Your task to perform on an android device: turn off priority inbox in the gmail app Image 0: 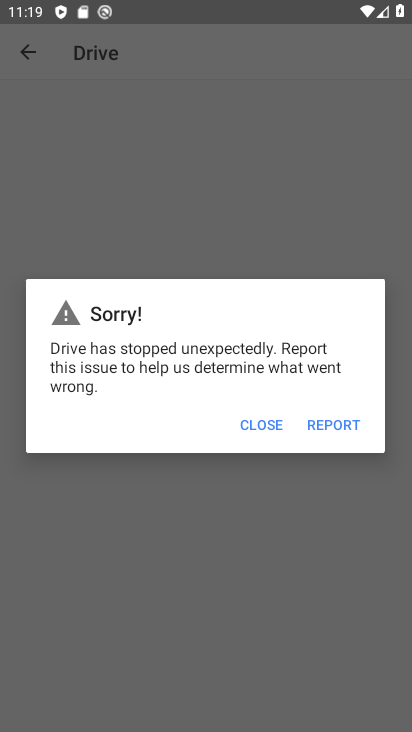
Step 0: press home button
Your task to perform on an android device: turn off priority inbox in the gmail app Image 1: 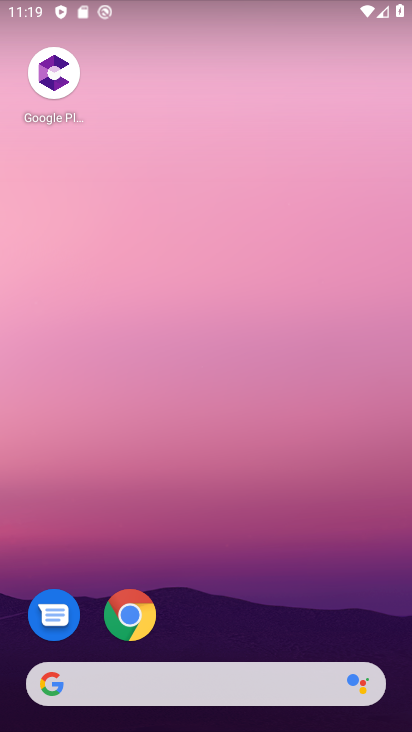
Step 1: drag from (208, 455) to (244, 15)
Your task to perform on an android device: turn off priority inbox in the gmail app Image 2: 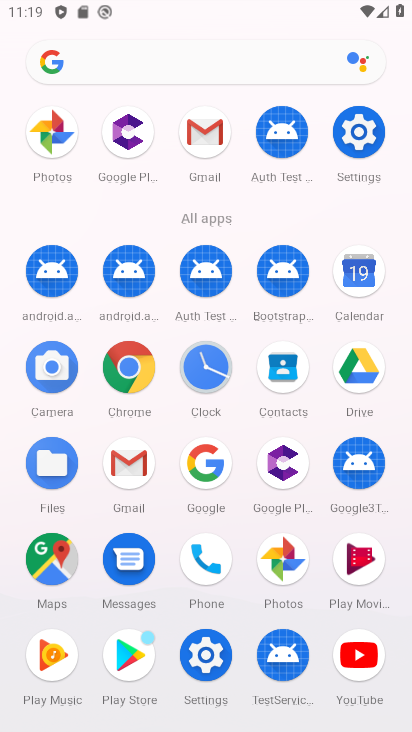
Step 2: click (202, 142)
Your task to perform on an android device: turn off priority inbox in the gmail app Image 3: 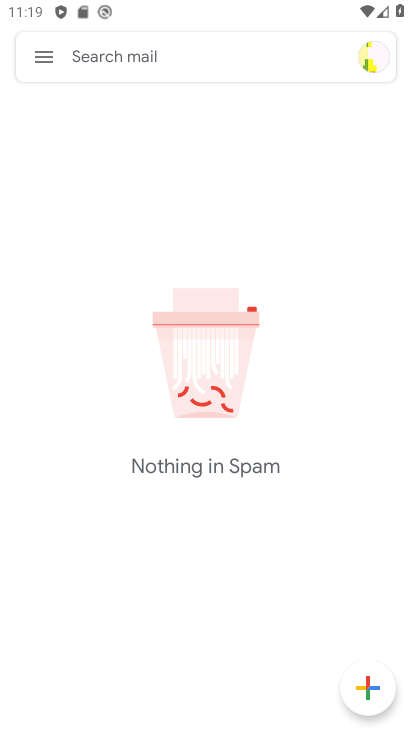
Step 3: click (57, 63)
Your task to perform on an android device: turn off priority inbox in the gmail app Image 4: 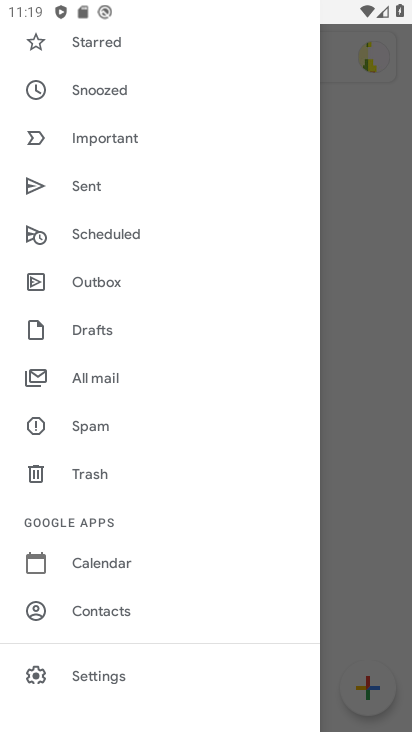
Step 4: click (98, 669)
Your task to perform on an android device: turn off priority inbox in the gmail app Image 5: 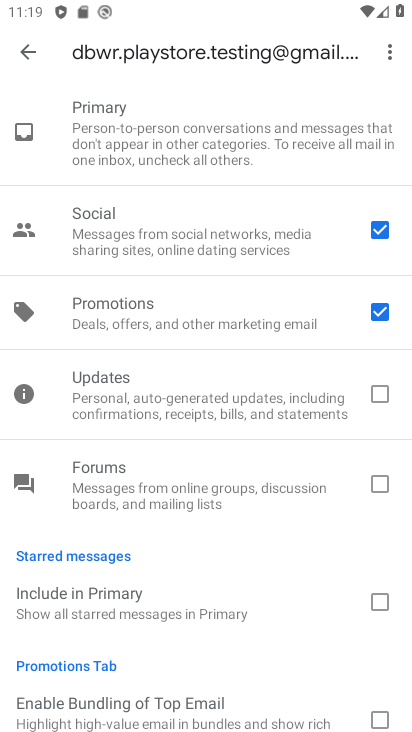
Step 5: click (25, 57)
Your task to perform on an android device: turn off priority inbox in the gmail app Image 6: 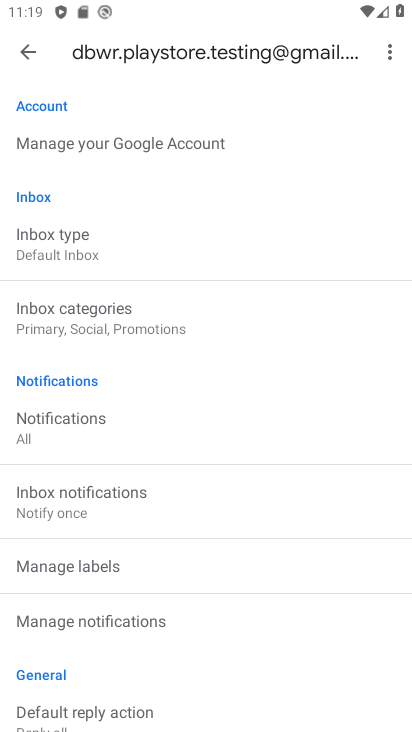
Step 6: click (98, 233)
Your task to perform on an android device: turn off priority inbox in the gmail app Image 7: 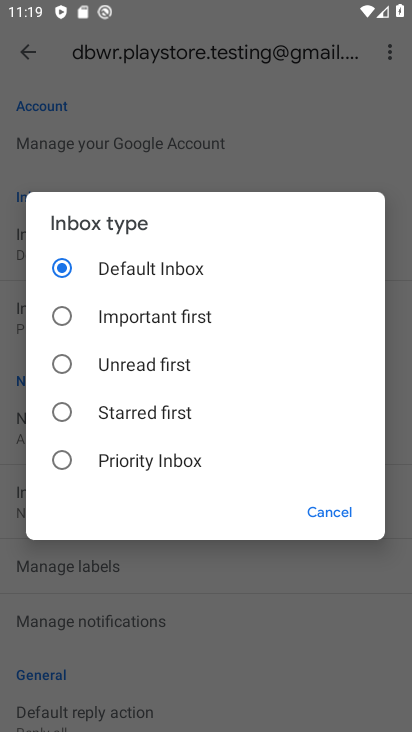
Step 7: click (58, 274)
Your task to perform on an android device: turn off priority inbox in the gmail app Image 8: 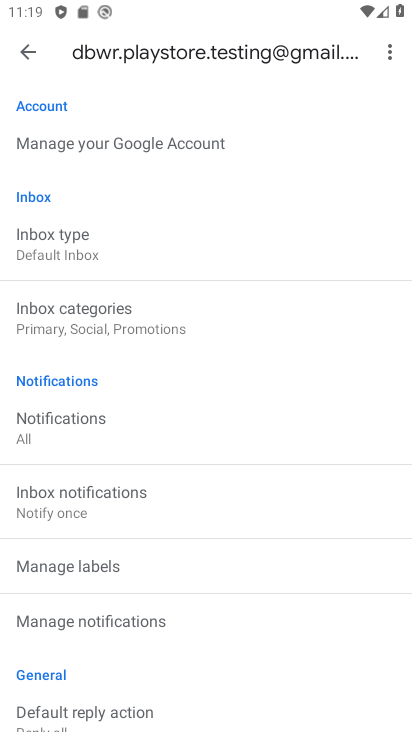
Step 8: task complete